Your task to perform on an android device: Search for pizza restaurants on Maps Image 0: 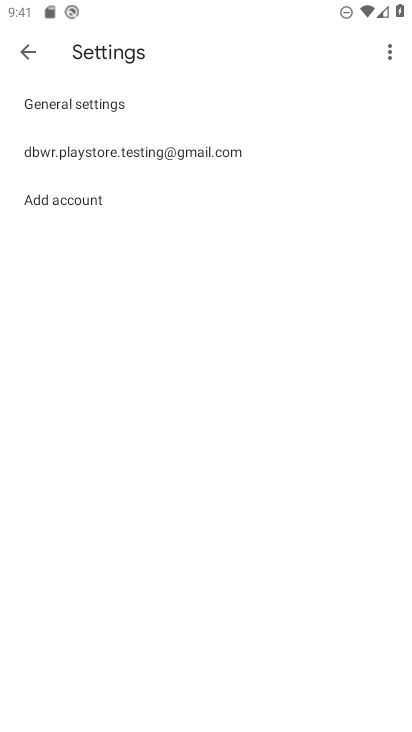
Step 0: press home button
Your task to perform on an android device: Search for pizza restaurants on Maps Image 1: 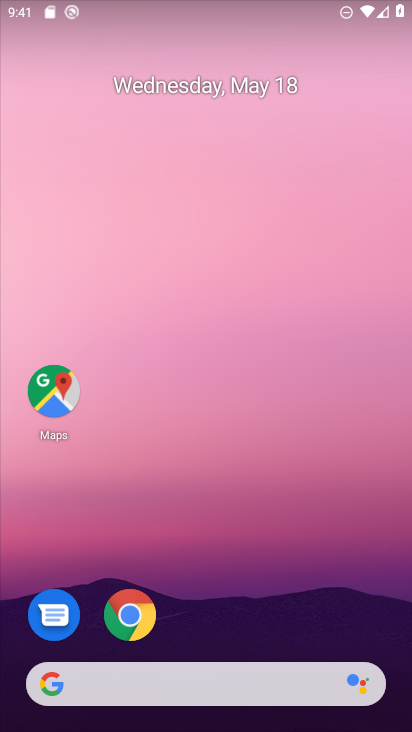
Step 1: click (53, 399)
Your task to perform on an android device: Search for pizza restaurants on Maps Image 2: 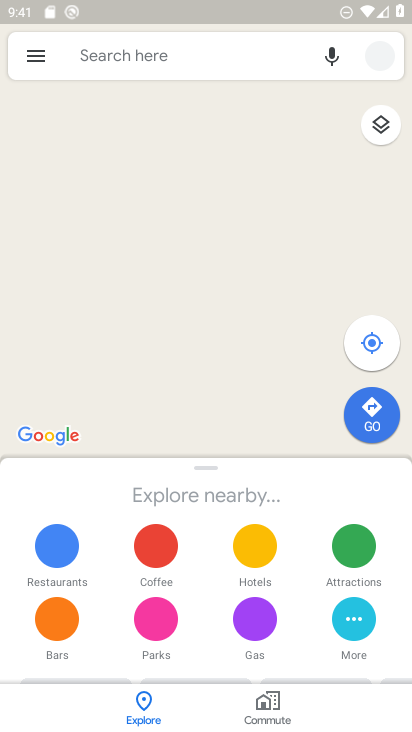
Step 2: click (182, 60)
Your task to perform on an android device: Search for pizza restaurants on Maps Image 3: 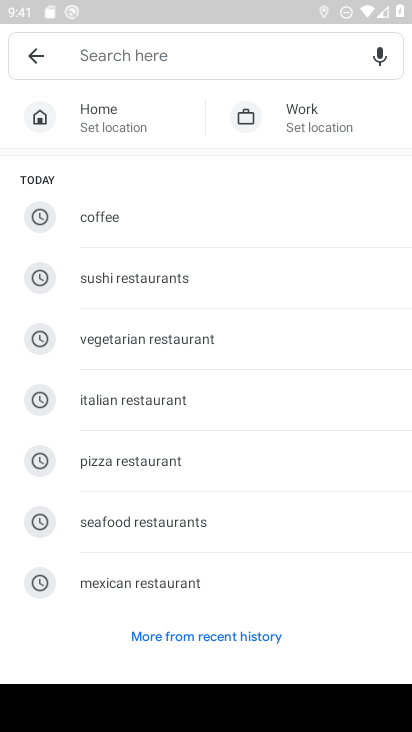
Step 3: click (160, 445)
Your task to perform on an android device: Search for pizza restaurants on Maps Image 4: 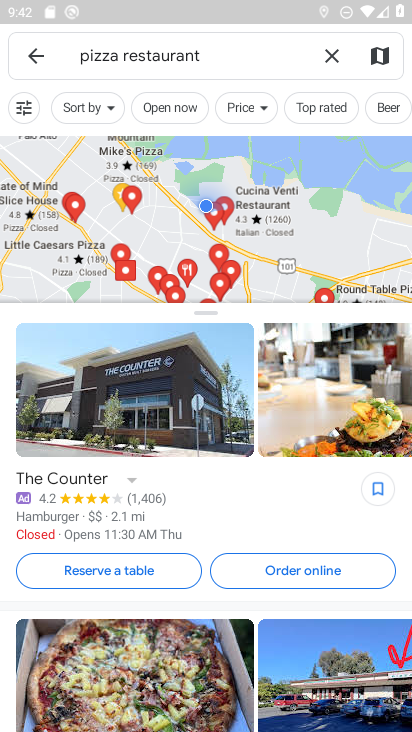
Step 4: task complete